Your task to perform on an android device: Search for "logitech g pro" on bestbuy.com, select the first entry, and add it to the cart. Image 0: 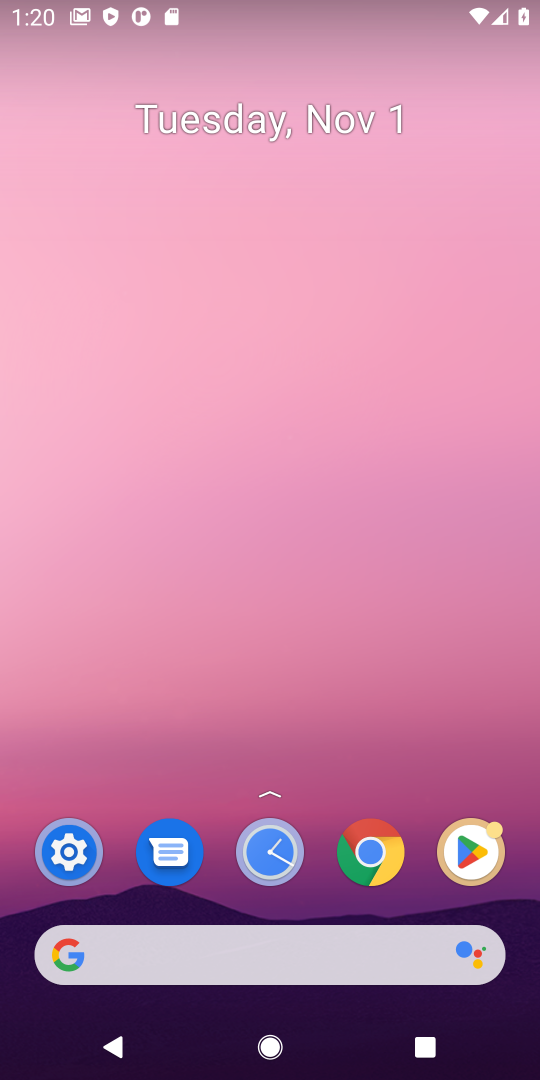
Step 0: click (223, 944)
Your task to perform on an android device: Search for "logitech g pro" on bestbuy.com, select the first entry, and add it to the cart. Image 1: 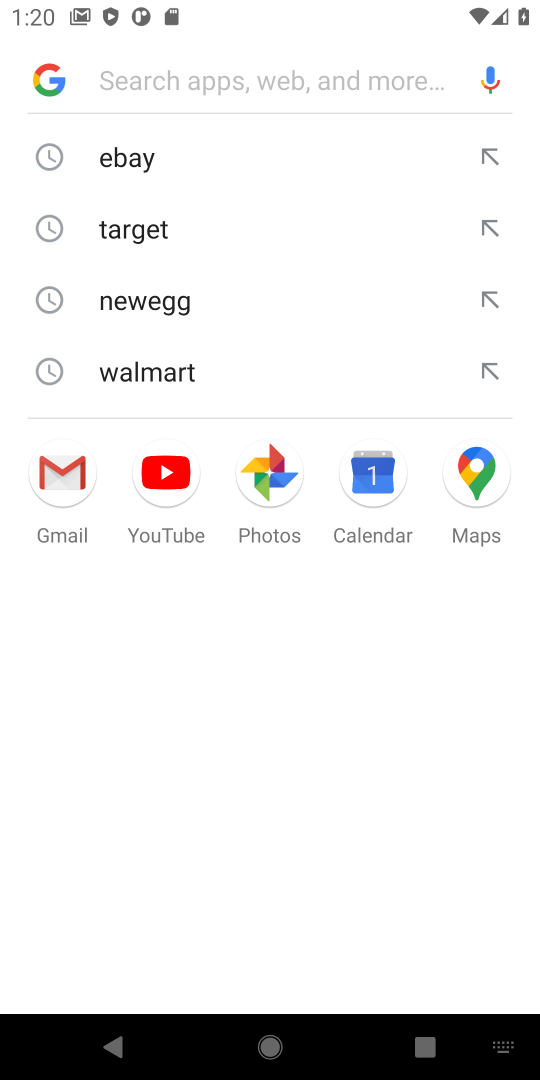
Step 1: type "bestbuy.com"
Your task to perform on an android device: Search for "logitech g pro" on bestbuy.com, select the first entry, and add it to the cart. Image 2: 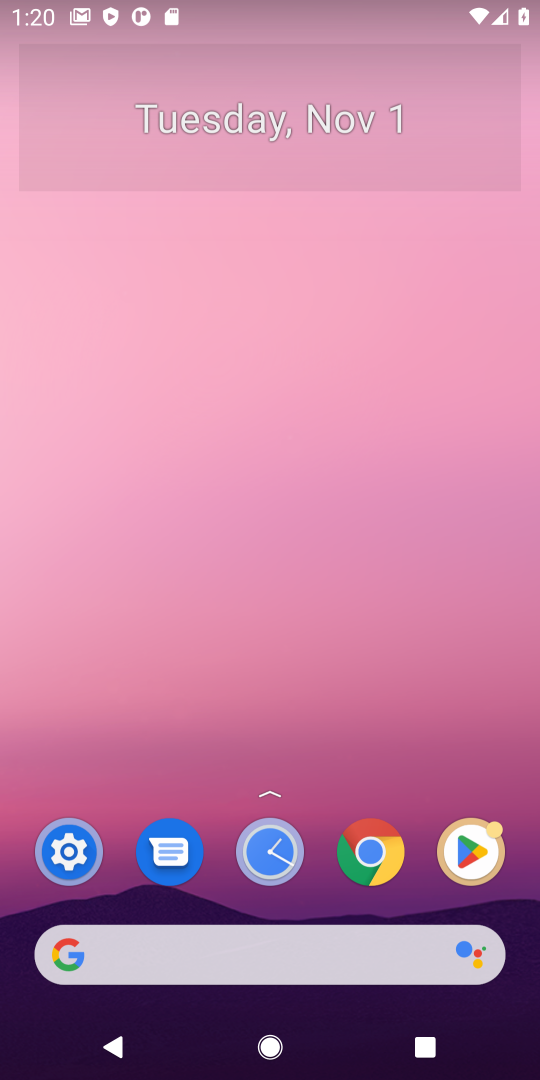
Step 2: press enter
Your task to perform on an android device: Search for "logitech g pro" on bestbuy.com, select the first entry, and add it to the cart. Image 3: 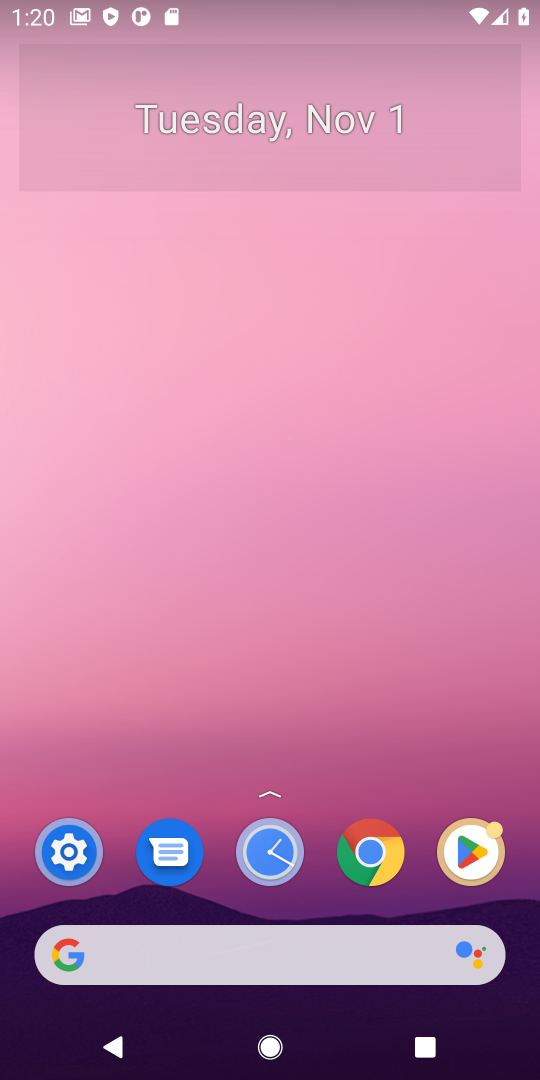
Step 3: type ""
Your task to perform on an android device: Search for "logitech g pro" on bestbuy.com, select the first entry, and add it to the cart. Image 4: 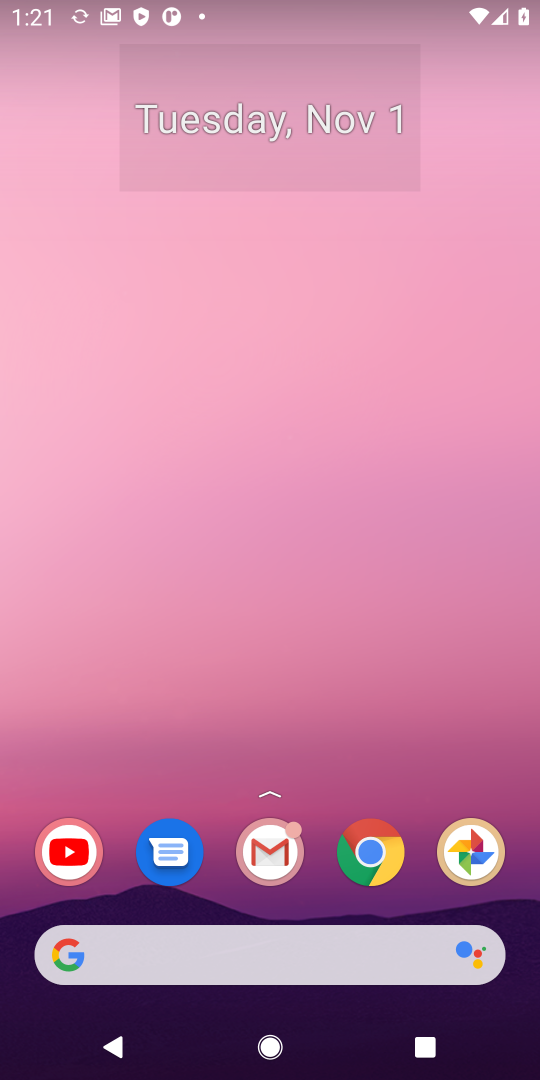
Step 4: click (213, 932)
Your task to perform on an android device: Search for "logitech g pro" on bestbuy.com, select the first entry, and add it to the cart. Image 5: 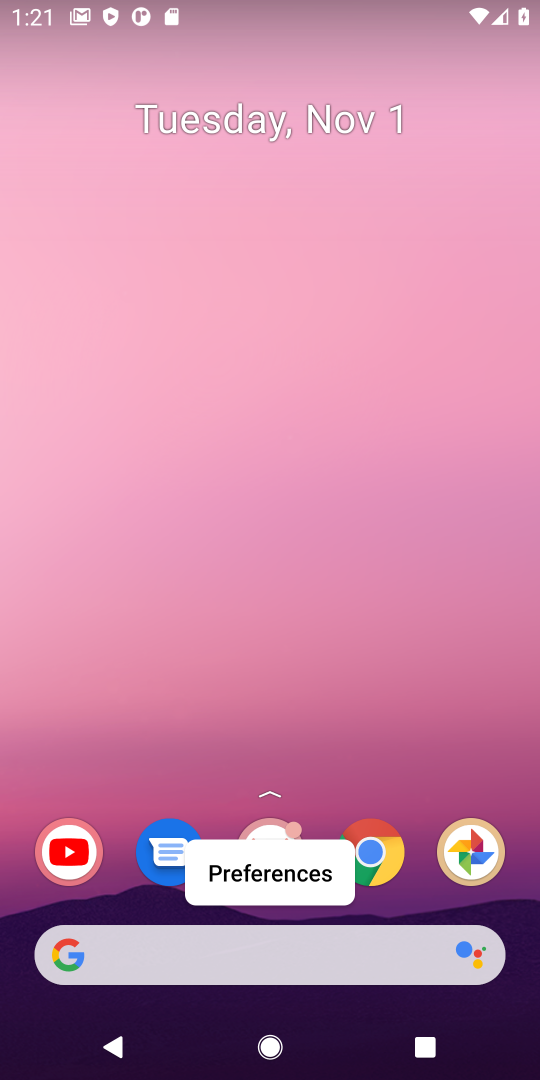
Step 5: click (213, 932)
Your task to perform on an android device: Search for "logitech g pro" on bestbuy.com, select the first entry, and add it to the cart. Image 6: 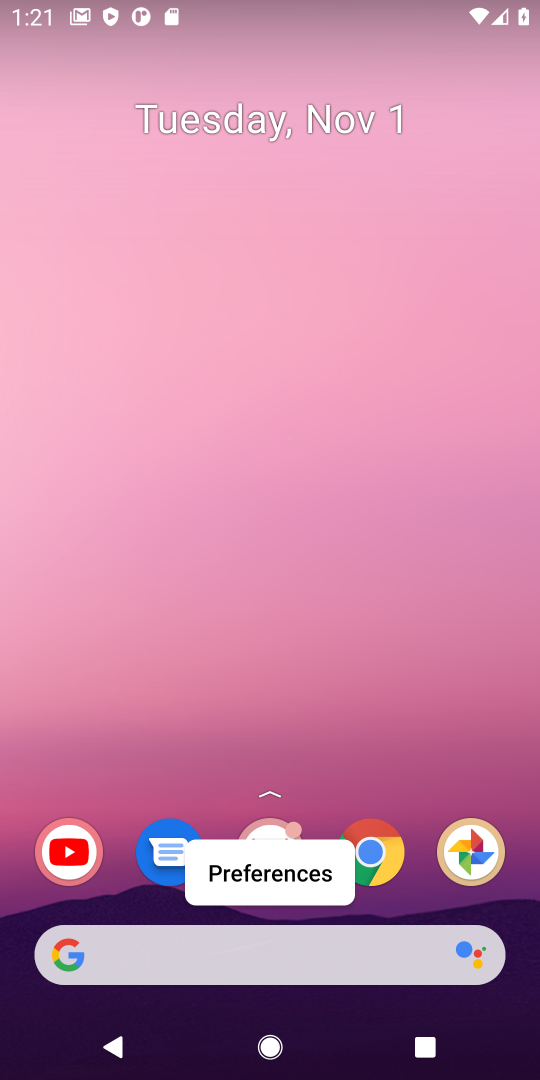
Step 6: click (203, 947)
Your task to perform on an android device: Search for "logitech g pro" on bestbuy.com, select the first entry, and add it to the cart. Image 7: 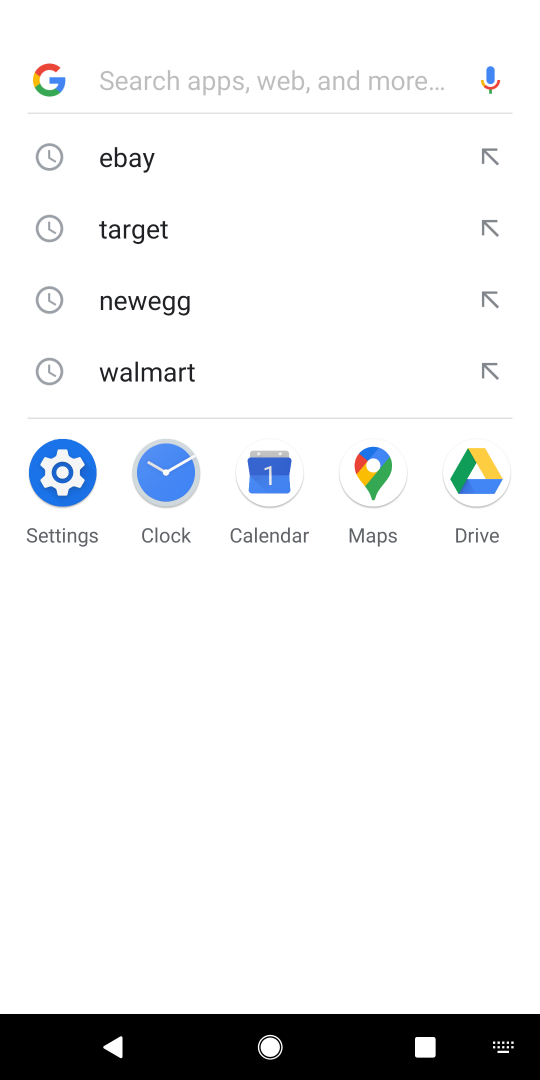
Step 7: type "bestbuy.com"
Your task to perform on an android device: Search for "logitech g pro" on bestbuy.com, select the first entry, and add it to the cart. Image 8: 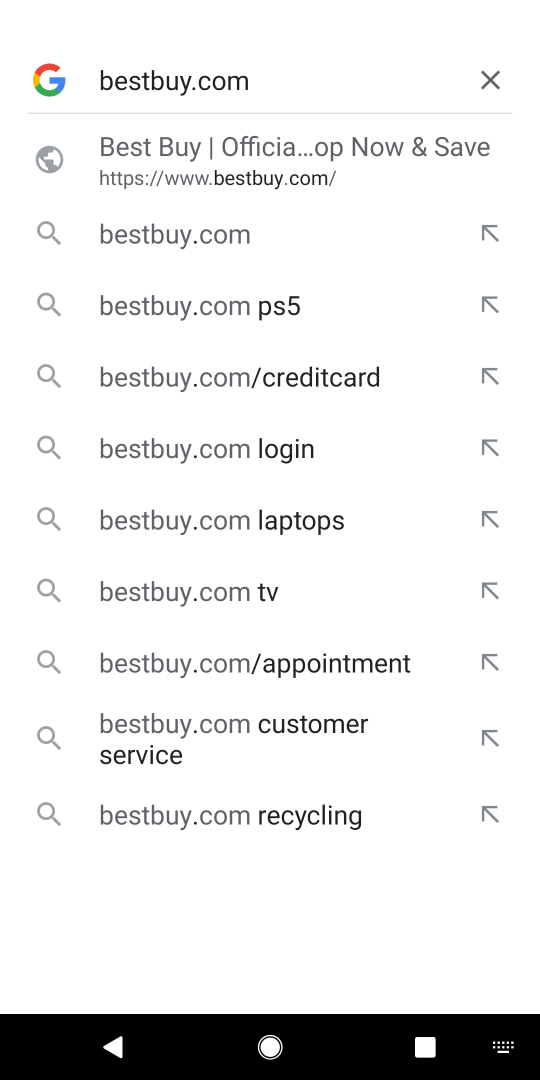
Step 8: type ""
Your task to perform on an android device: Search for "logitech g pro" on bestbuy.com, select the first entry, and add it to the cart. Image 9: 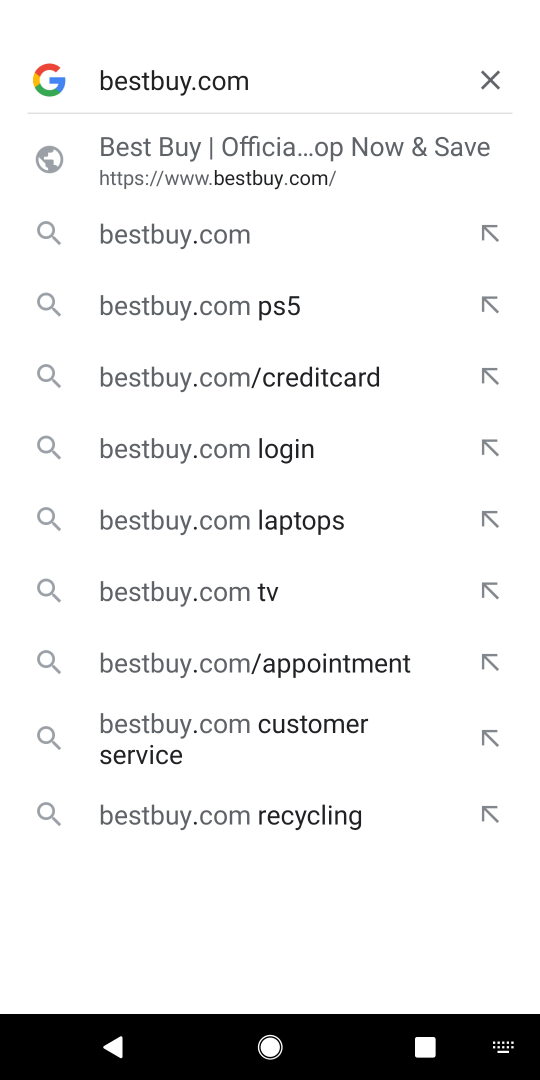
Step 9: type ""
Your task to perform on an android device: Search for "logitech g pro" on bestbuy.com, select the first entry, and add it to the cart. Image 10: 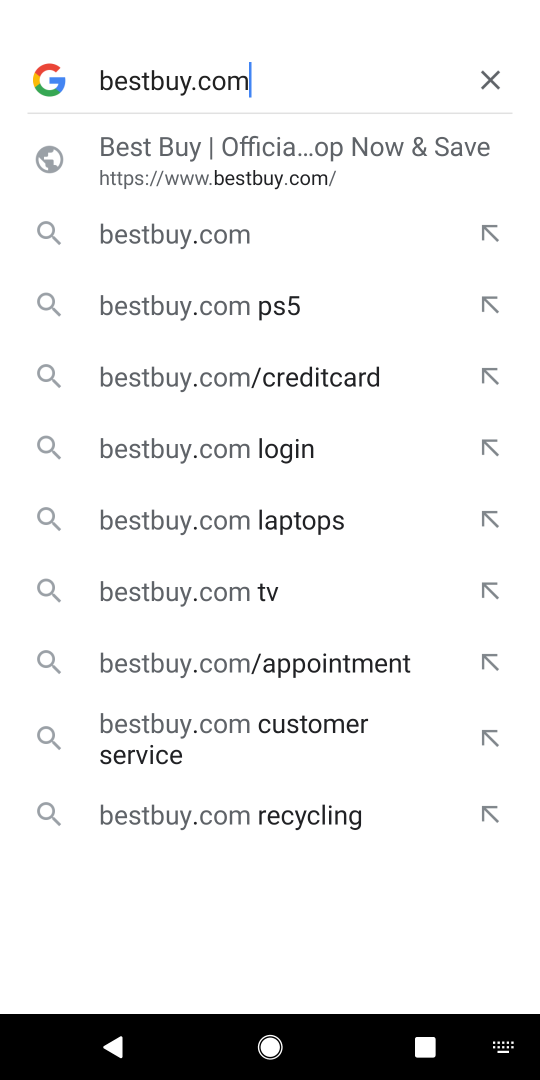
Step 10: click (173, 257)
Your task to perform on an android device: Search for "logitech g pro" on bestbuy.com, select the first entry, and add it to the cart. Image 11: 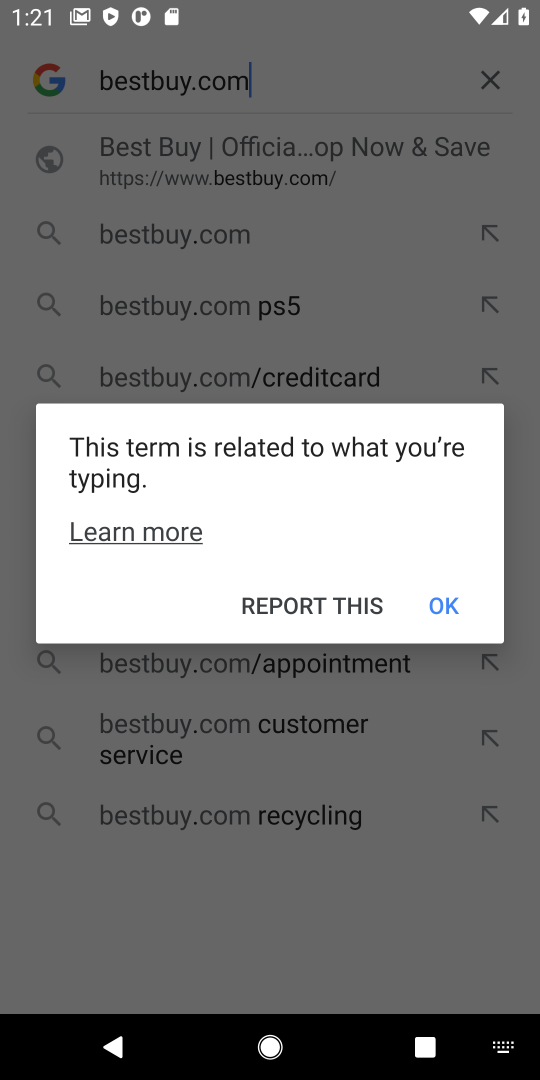
Step 11: press enter
Your task to perform on an android device: Search for "logitech g pro" on bestbuy.com, select the first entry, and add it to the cart. Image 12: 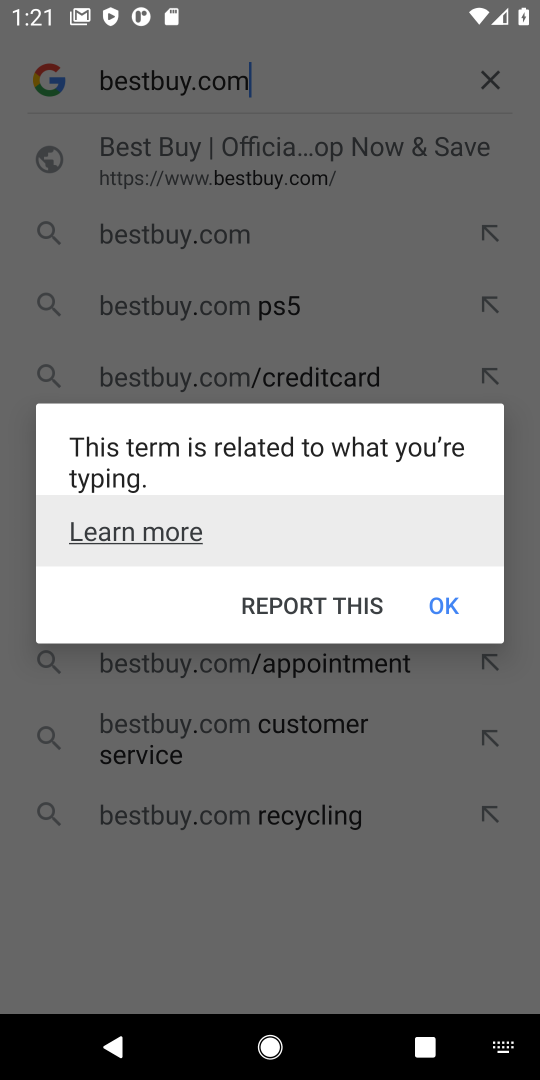
Step 12: press enter
Your task to perform on an android device: Search for "logitech g pro" on bestbuy.com, select the first entry, and add it to the cart. Image 13: 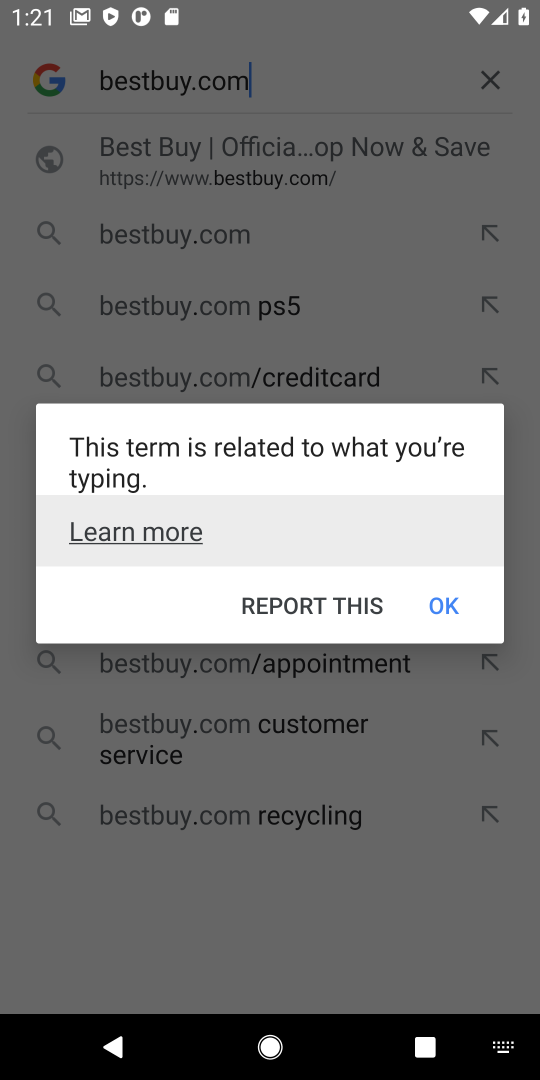
Step 13: click (455, 617)
Your task to perform on an android device: Search for "logitech g pro" on bestbuy.com, select the first entry, and add it to the cart. Image 14: 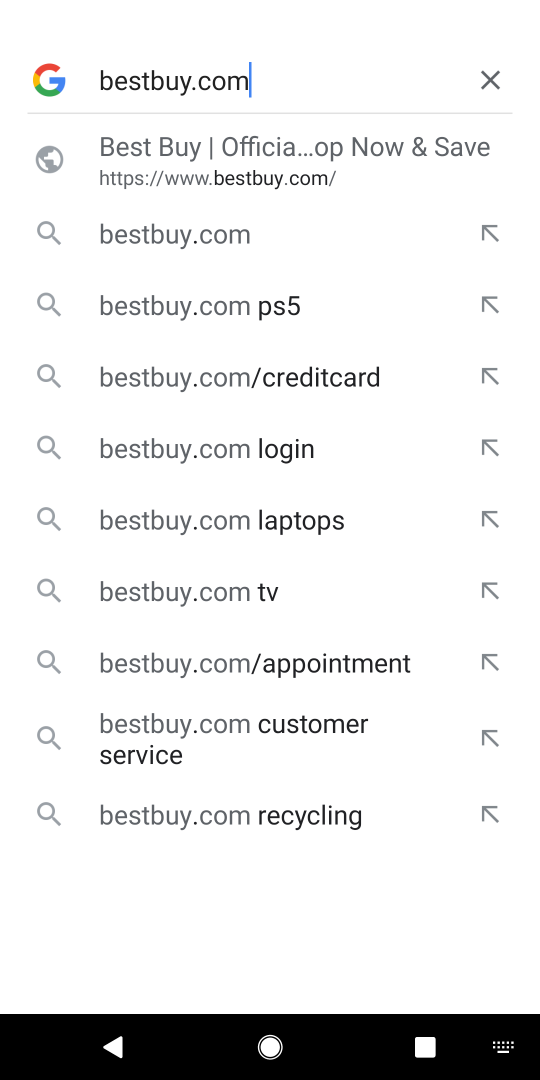
Step 14: press enter
Your task to perform on an android device: Search for "logitech g pro" on bestbuy.com, select the first entry, and add it to the cart. Image 15: 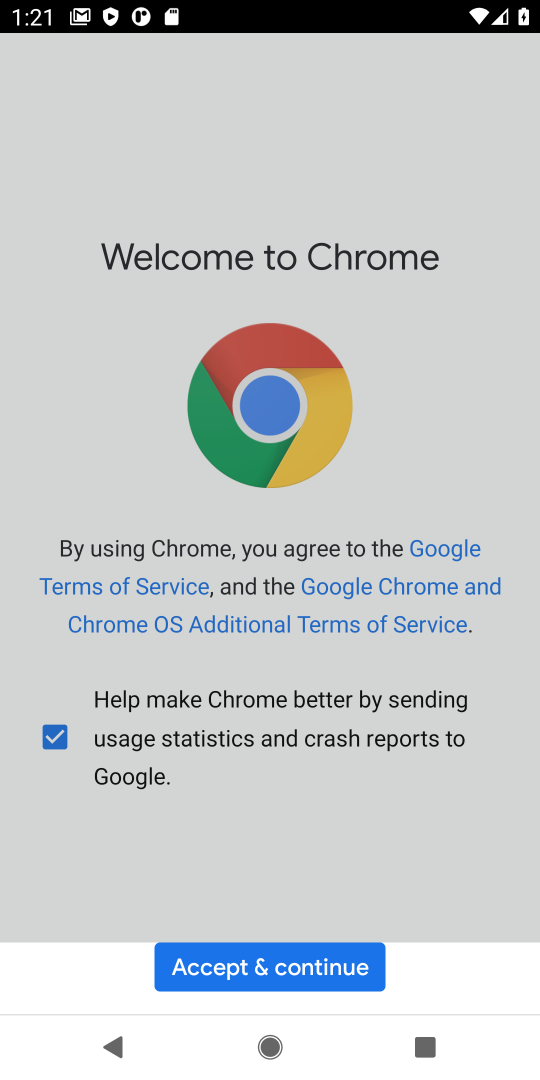
Step 15: click (300, 967)
Your task to perform on an android device: Search for "logitech g pro" on bestbuy.com, select the first entry, and add it to the cart. Image 16: 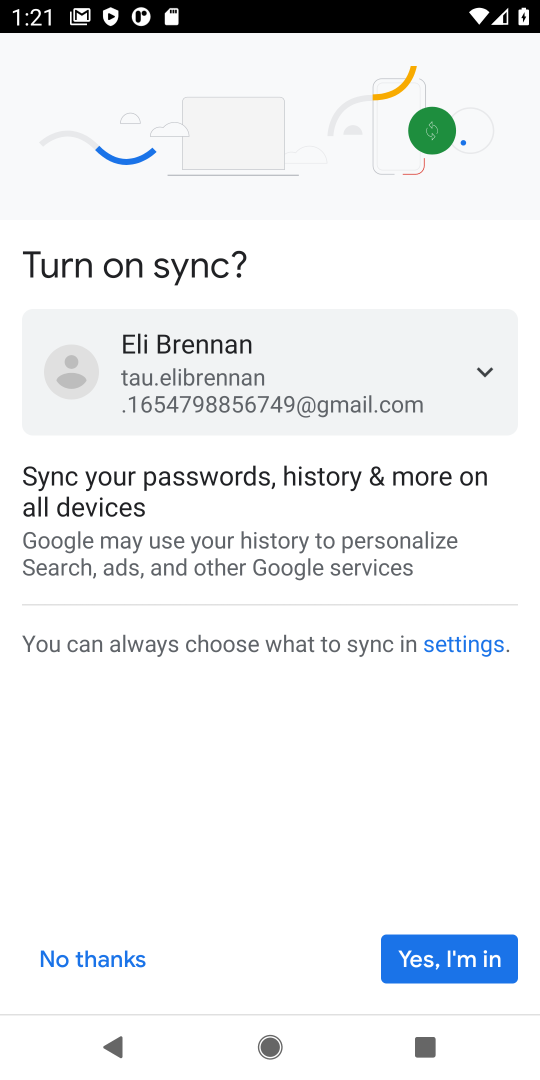
Step 16: click (431, 960)
Your task to perform on an android device: Search for "logitech g pro" on bestbuy.com, select the first entry, and add it to the cart. Image 17: 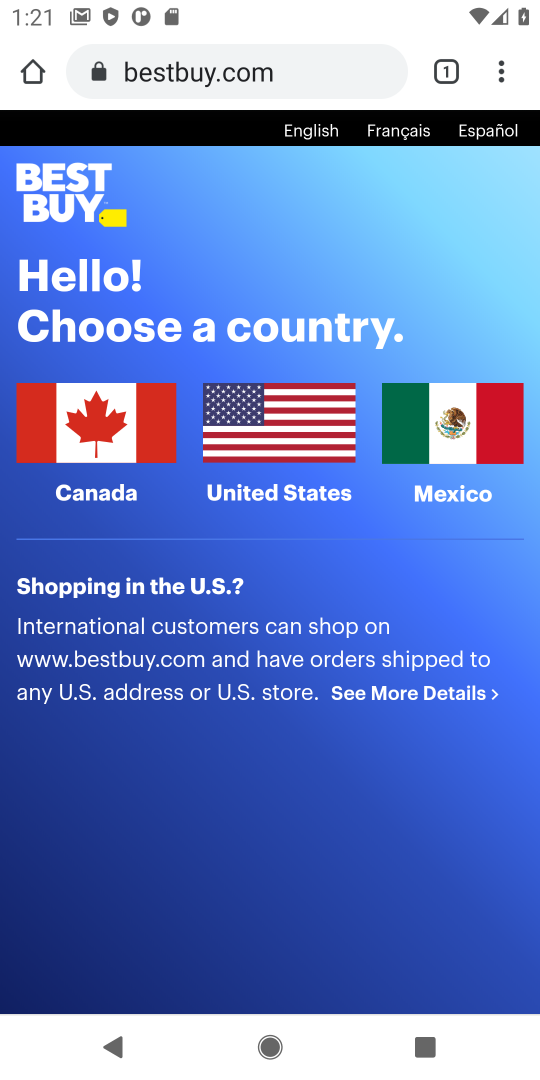
Step 17: click (265, 448)
Your task to perform on an android device: Search for "logitech g pro" on bestbuy.com, select the first entry, and add it to the cart. Image 18: 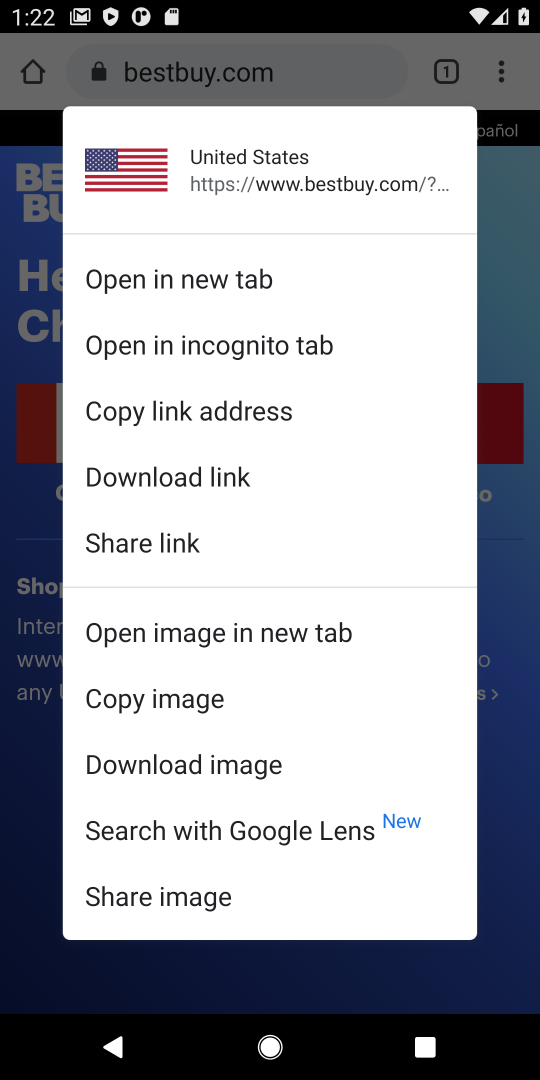
Step 18: click (509, 937)
Your task to perform on an android device: Search for "logitech g pro" on bestbuy.com, select the first entry, and add it to the cart. Image 19: 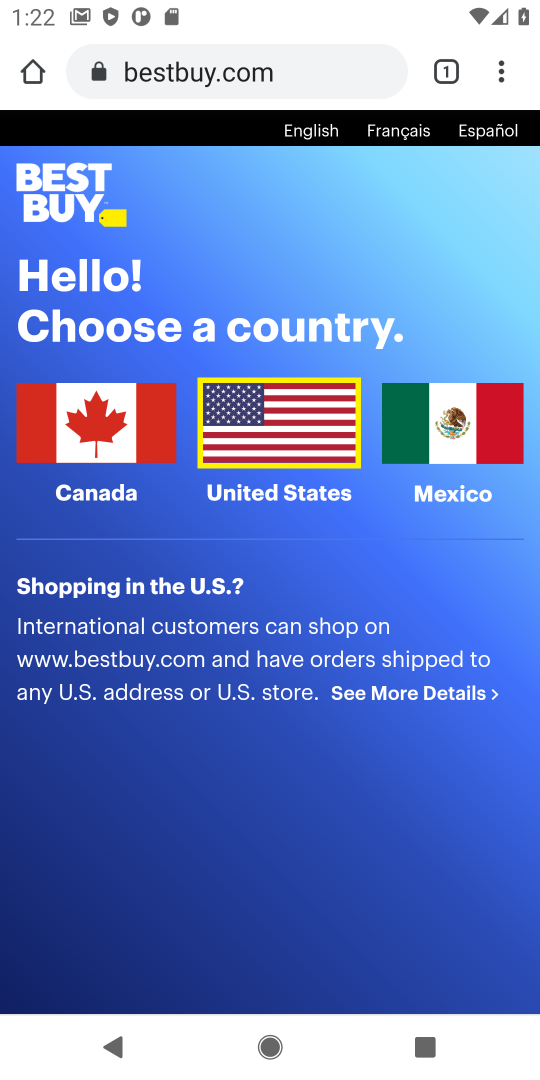
Step 19: click (257, 436)
Your task to perform on an android device: Search for "logitech g pro" on bestbuy.com, select the first entry, and add it to the cart. Image 20: 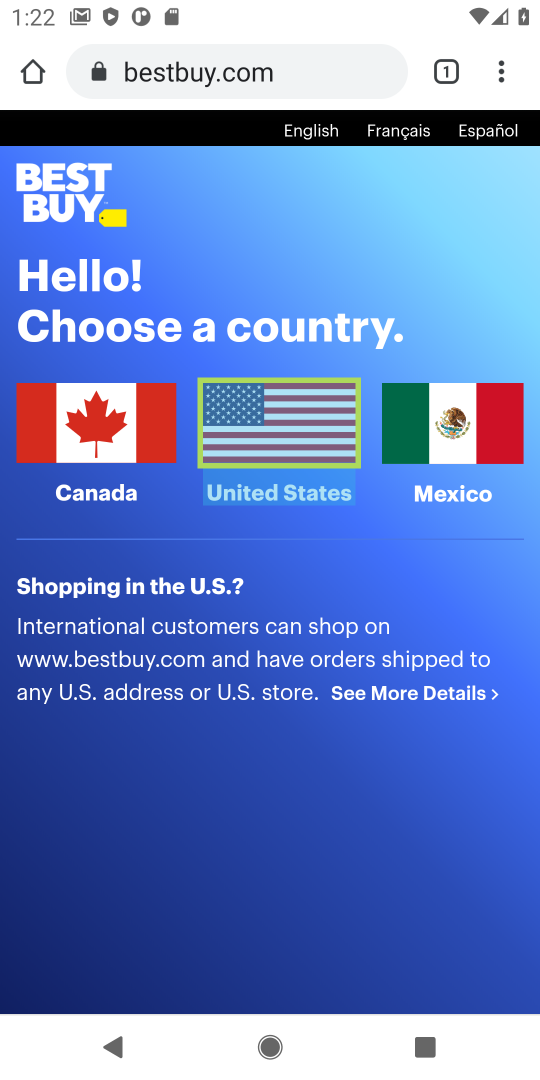
Step 20: click (257, 436)
Your task to perform on an android device: Search for "logitech g pro" on bestbuy.com, select the first entry, and add it to the cart. Image 21: 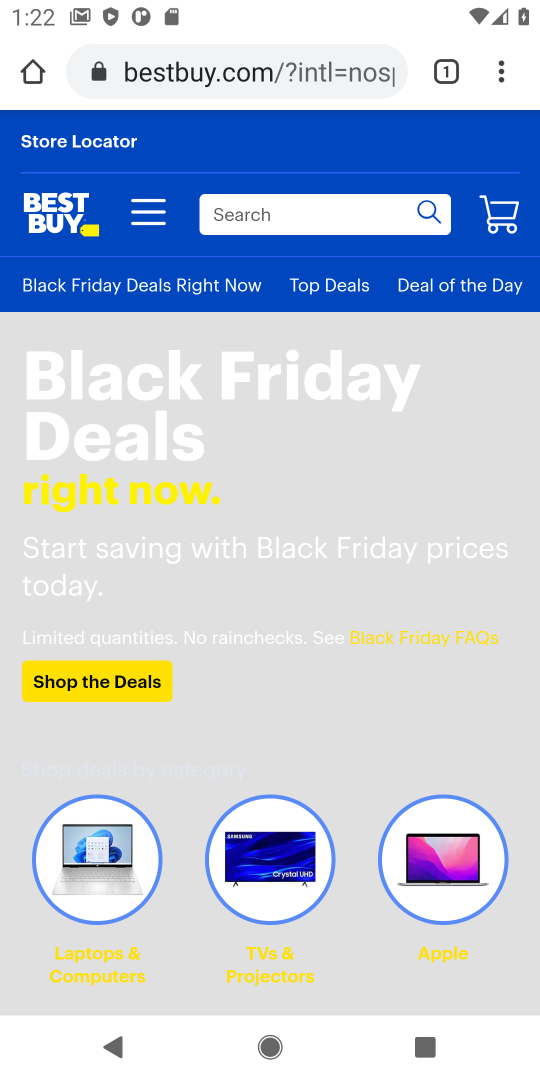
Step 21: click (288, 219)
Your task to perform on an android device: Search for "logitech g pro" on bestbuy.com, select the first entry, and add it to the cart. Image 22: 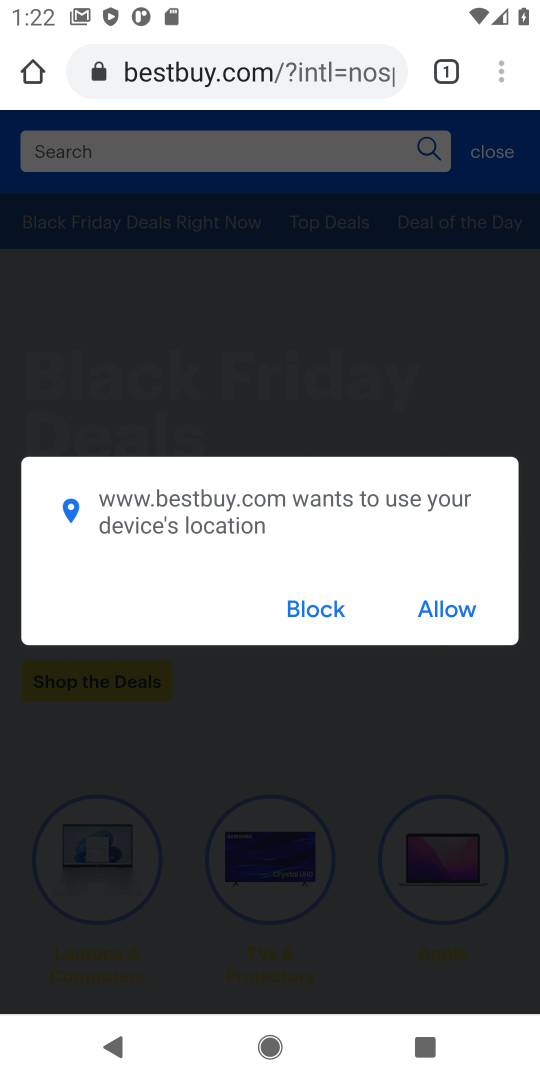
Step 22: click (438, 599)
Your task to perform on an android device: Search for "logitech g pro" on bestbuy.com, select the first entry, and add it to the cart. Image 23: 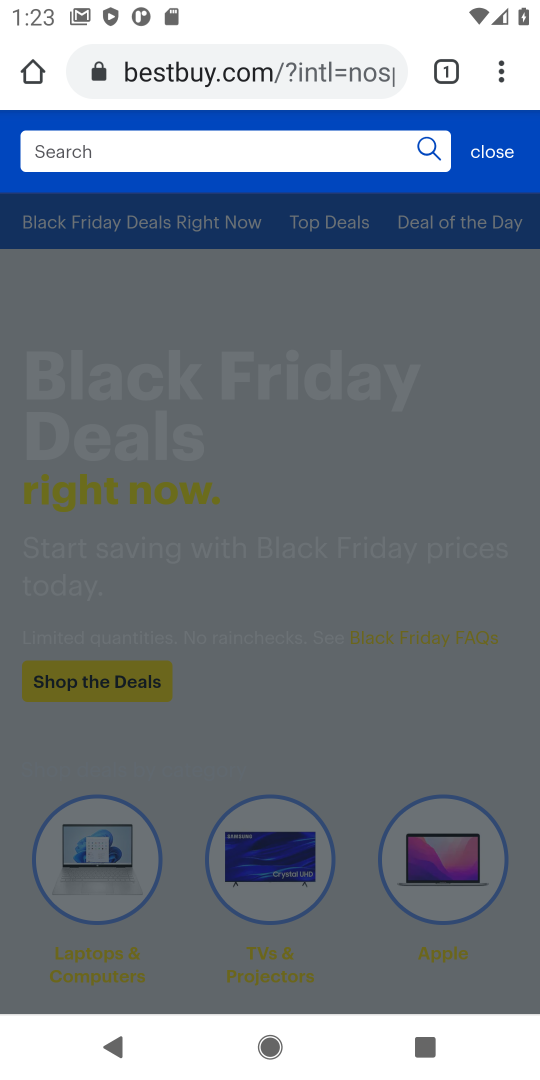
Step 23: type "logitech g pro"
Your task to perform on an android device: Search for "logitech g pro" on bestbuy.com, select the first entry, and add it to the cart. Image 24: 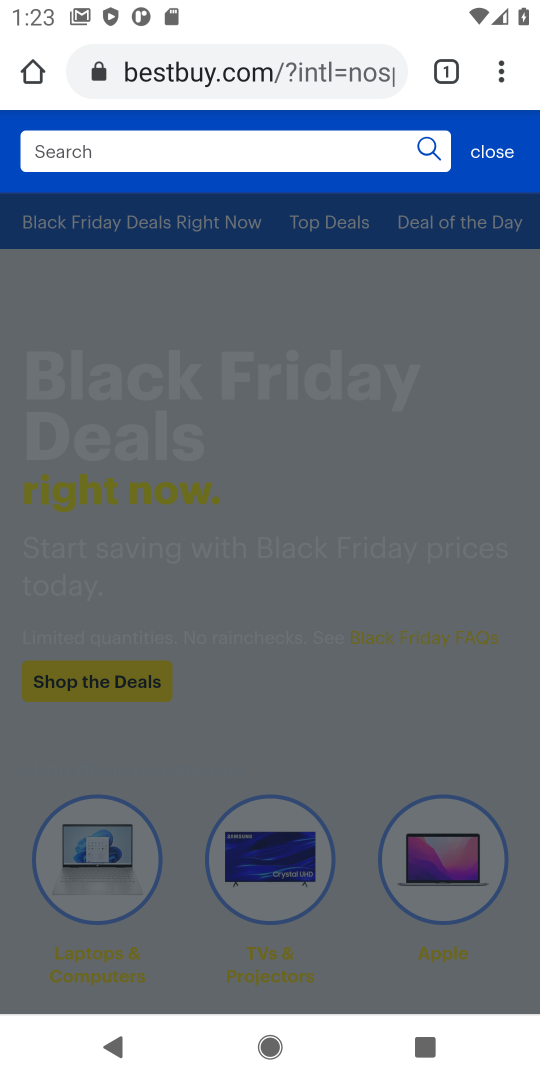
Step 24: type ""
Your task to perform on an android device: Search for "logitech g pro" on bestbuy.com, select the first entry, and add it to the cart. Image 25: 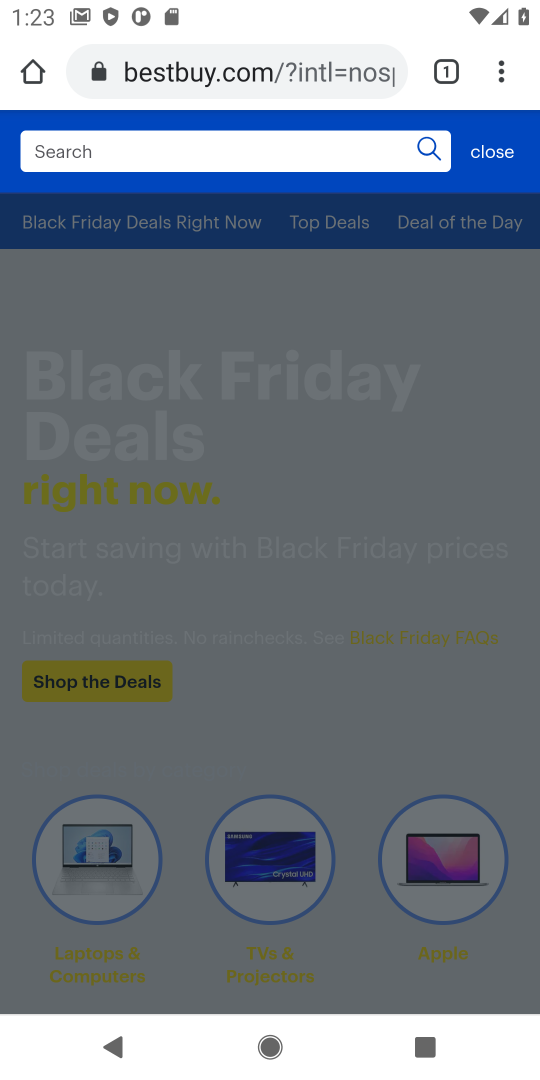
Step 25: press enter
Your task to perform on an android device: Search for "logitech g pro" on bestbuy.com, select the first entry, and add it to the cart. Image 26: 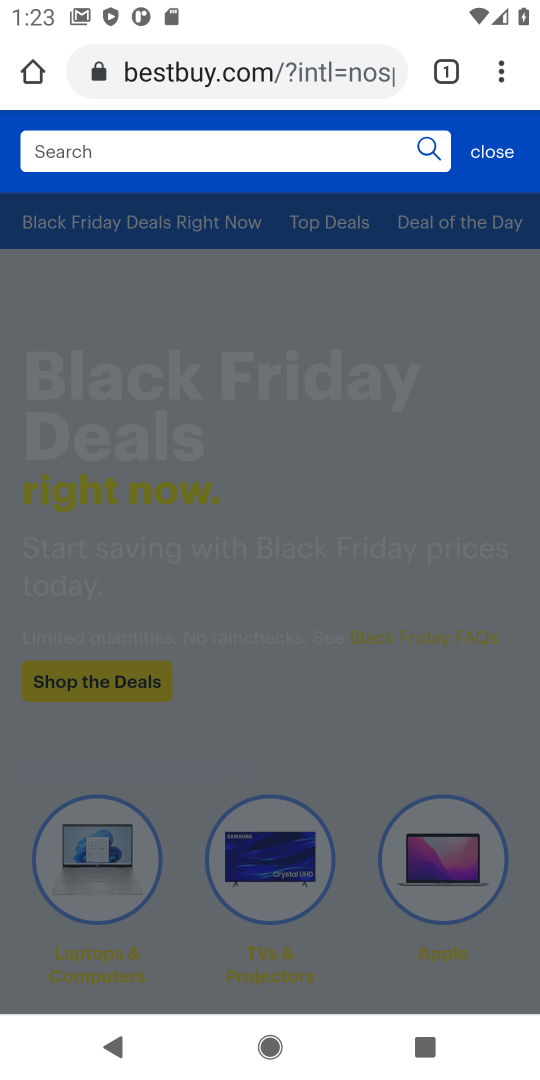
Step 26: click (134, 169)
Your task to perform on an android device: Search for "logitech g pro" on bestbuy.com, select the first entry, and add it to the cart. Image 27: 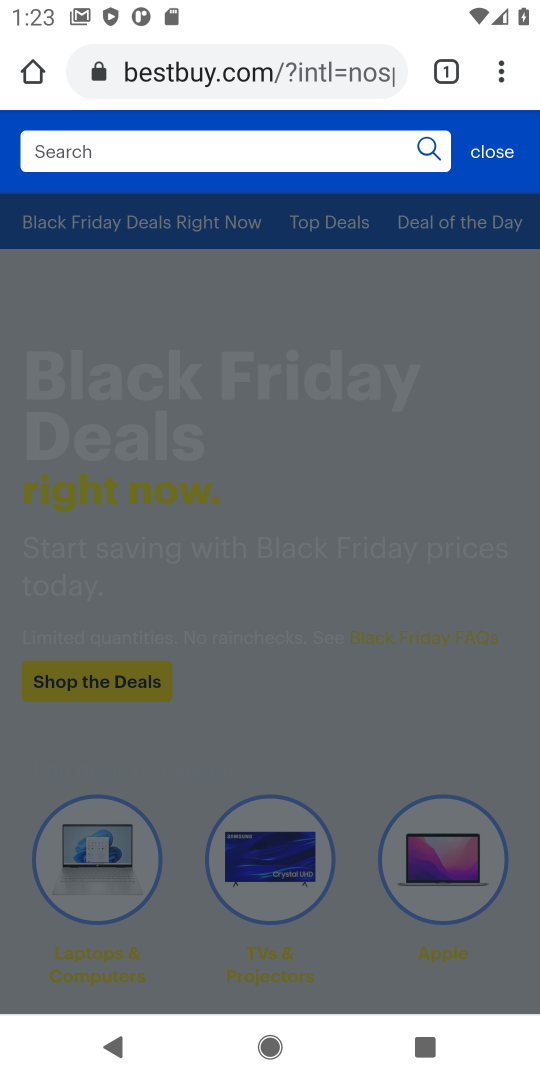
Step 27: click (132, 156)
Your task to perform on an android device: Search for "logitech g pro" on bestbuy.com, select the first entry, and add it to the cart. Image 28: 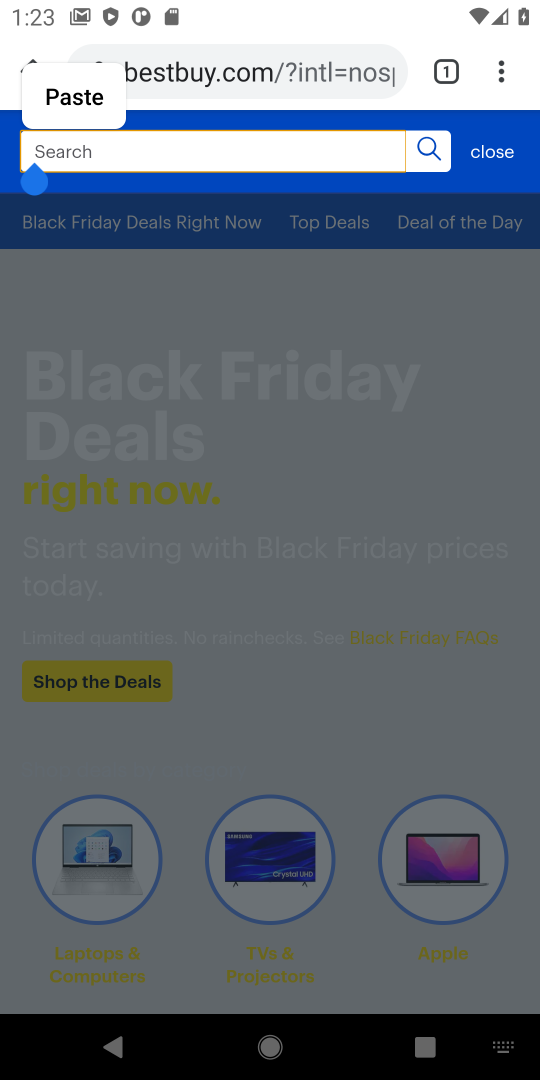
Step 28: type "logitech g pro"
Your task to perform on an android device: Search for "logitech g pro" on bestbuy.com, select the first entry, and add it to the cart. Image 29: 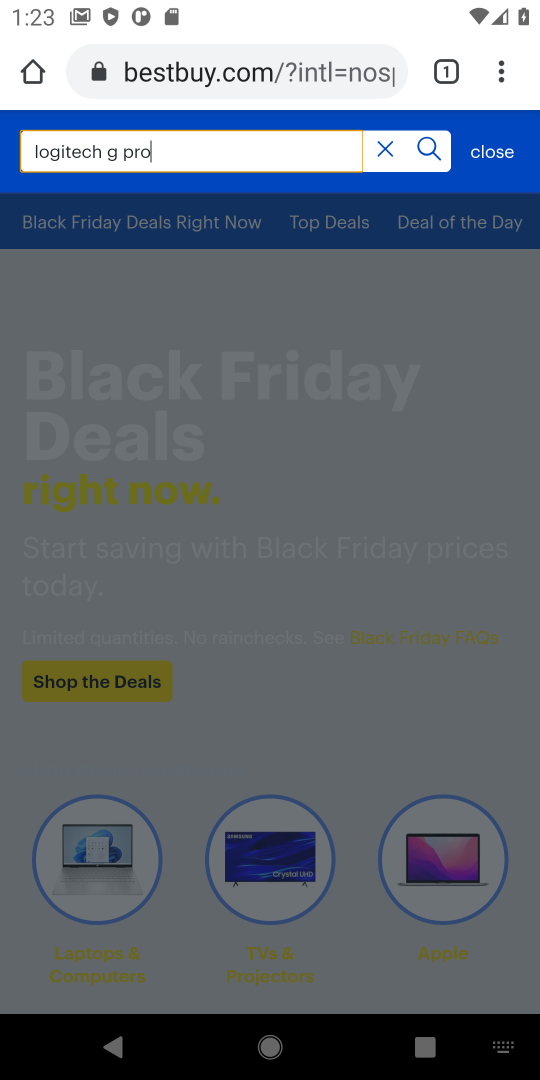
Step 29: type ""
Your task to perform on an android device: Search for "logitech g pro" on bestbuy.com, select the first entry, and add it to the cart. Image 30: 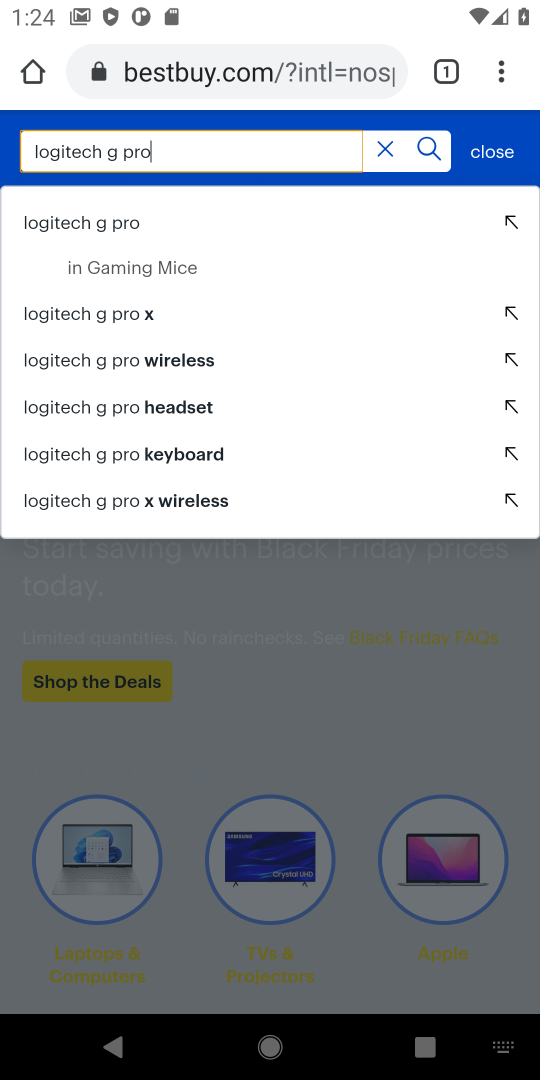
Step 30: press enter
Your task to perform on an android device: Search for "logitech g pro" on bestbuy.com, select the first entry, and add it to the cart. Image 31: 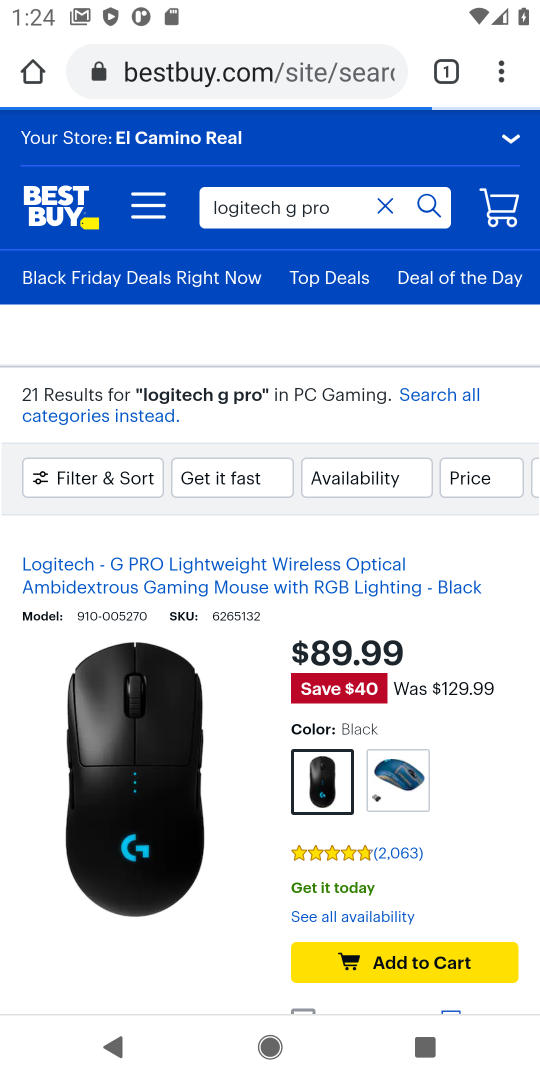
Step 31: drag from (481, 845) to (468, 217)
Your task to perform on an android device: Search for "logitech g pro" on bestbuy.com, select the first entry, and add it to the cart. Image 32: 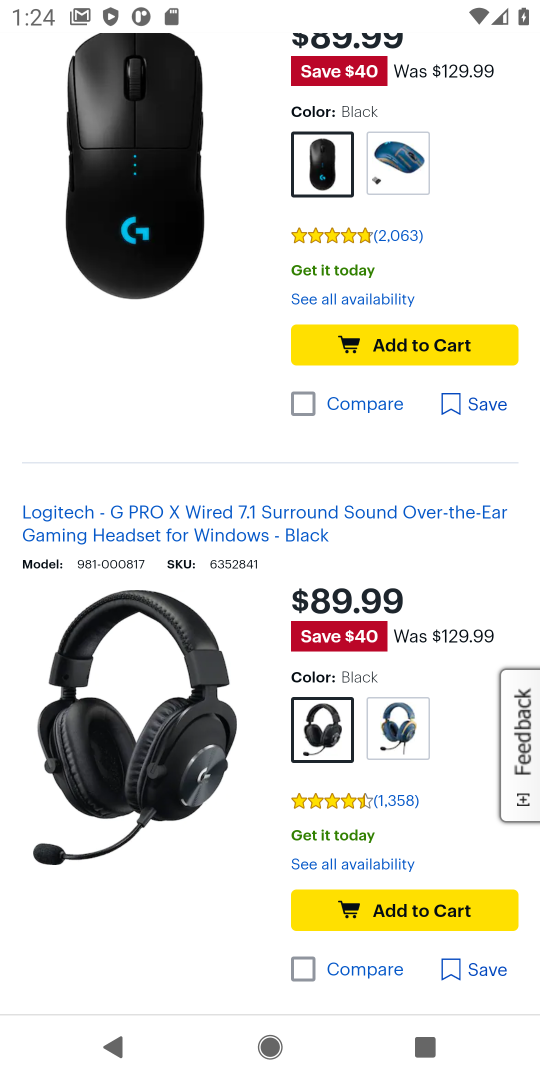
Step 32: drag from (388, 445) to (464, 198)
Your task to perform on an android device: Search for "logitech g pro" on bestbuy.com, select the first entry, and add it to the cart. Image 33: 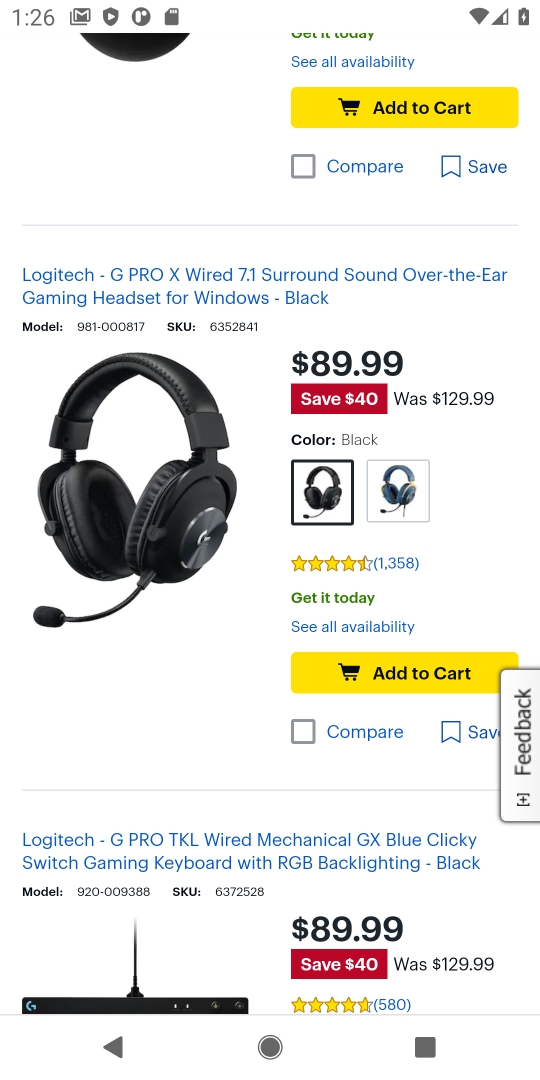
Step 33: click (368, 43)
Your task to perform on an android device: Search for "logitech g pro" on bestbuy.com, select the first entry, and add it to the cart. Image 34: 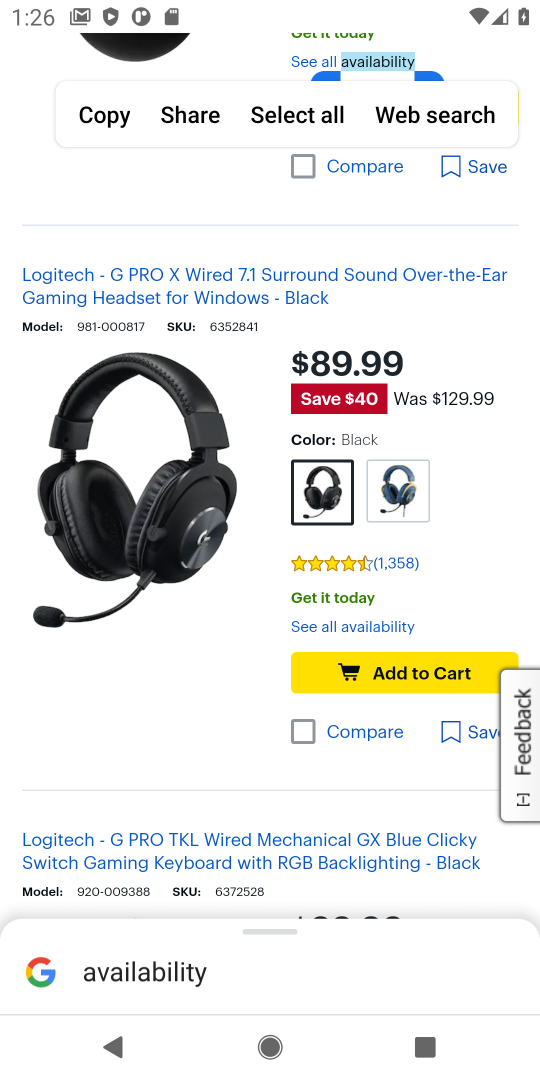
Step 34: task complete